Your task to perform on an android device: Open calendar and show me the second week of next month Image 0: 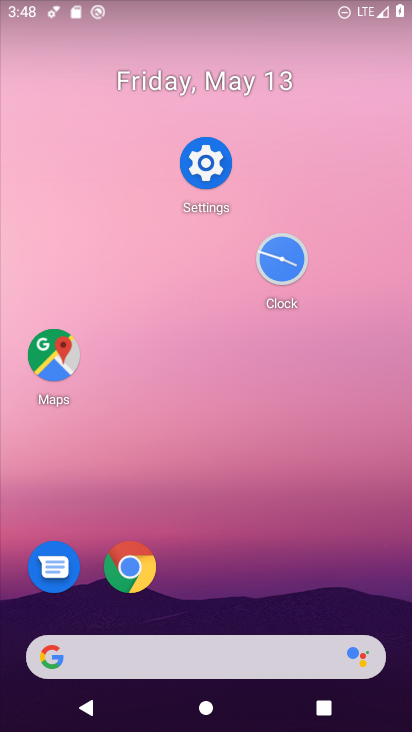
Step 0: click (219, 194)
Your task to perform on an android device: Open calendar and show me the second week of next month Image 1: 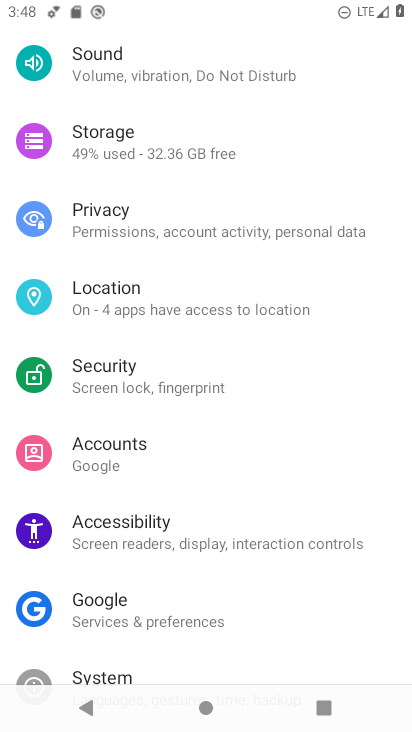
Step 1: press home button
Your task to perform on an android device: Open calendar and show me the second week of next month Image 2: 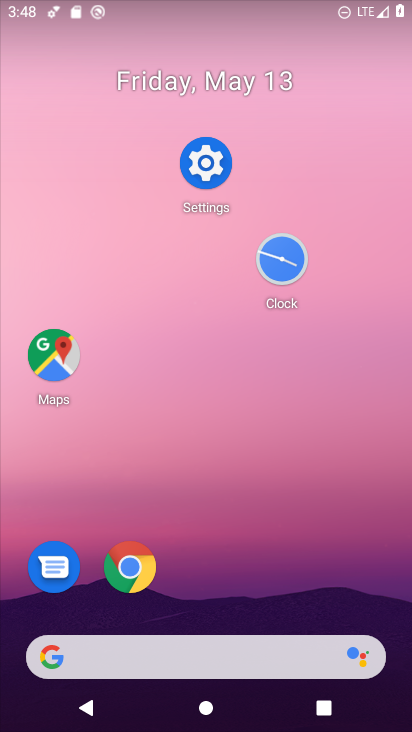
Step 2: drag from (237, 519) to (287, 296)
Your task to perform on an android device: Open calendar and show me the second week of next month Image 3: 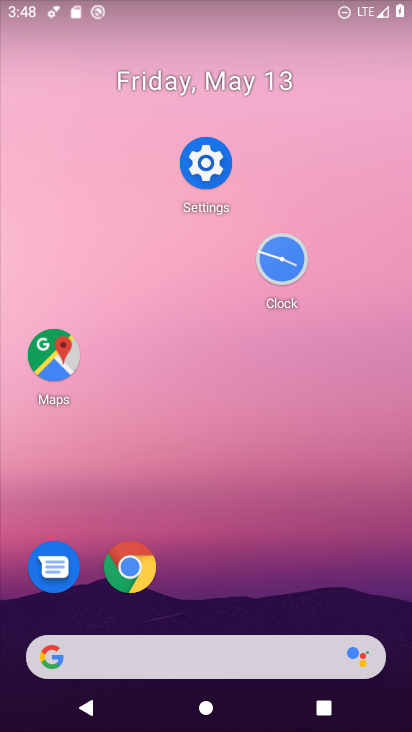
Step 3: drag from (234, 548) to (320, 7)
Your task to perform on an android device: Open calendar and show me the second week of next month Image 4: 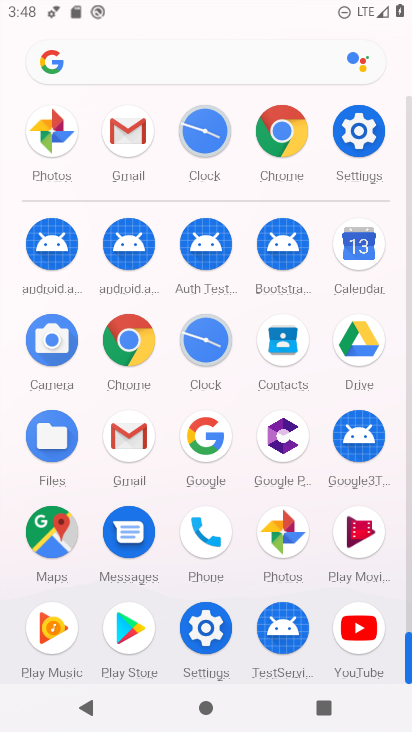
Step 4: click (375, 258)
Your task to perform on an android device: Open calendar and show me the second week of next month Image 5: 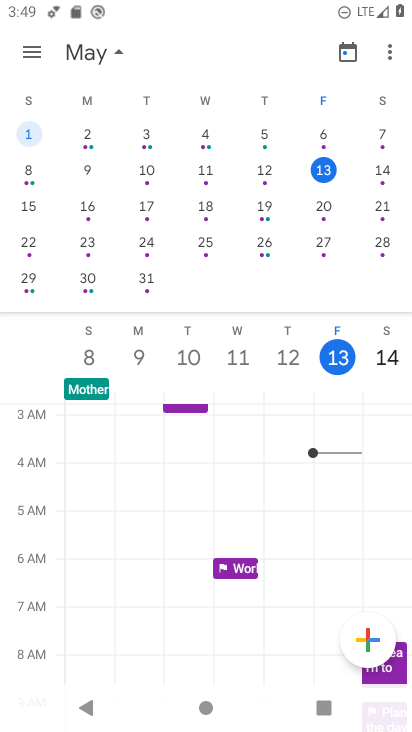
Step 5: drag from (361, 228) to (0, 256)
Your task to perform on an android device: Open calendar and show me the second week of next month Image 6: 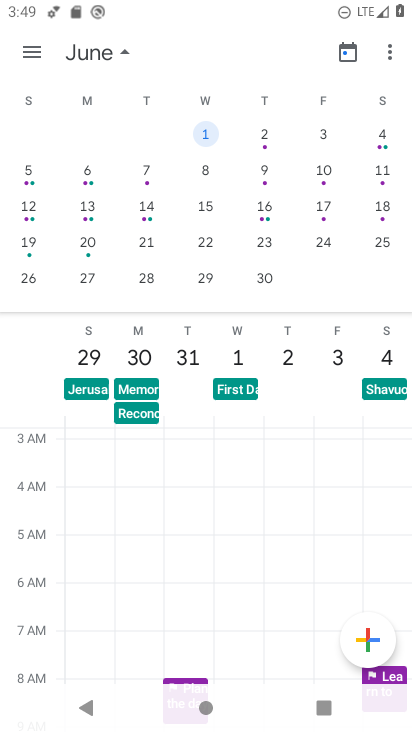
Step 6: click (142, 209)
Your task to perform on an android device: Open calendar and show me the second week of next month Image 7: 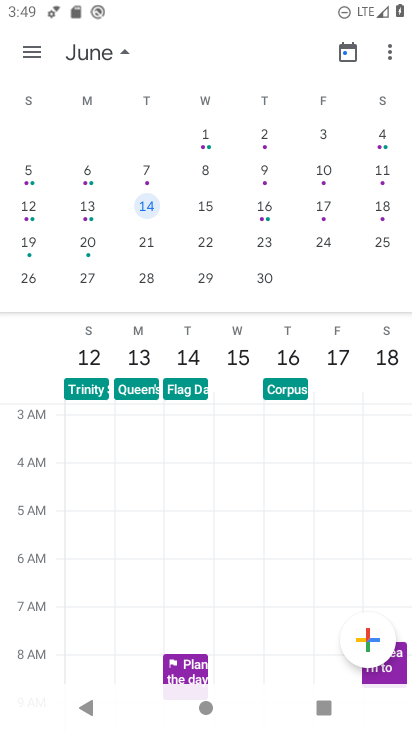
Step 7: task complete